Your task to perform on an android device: Open Maps and search for coffee Image 0: 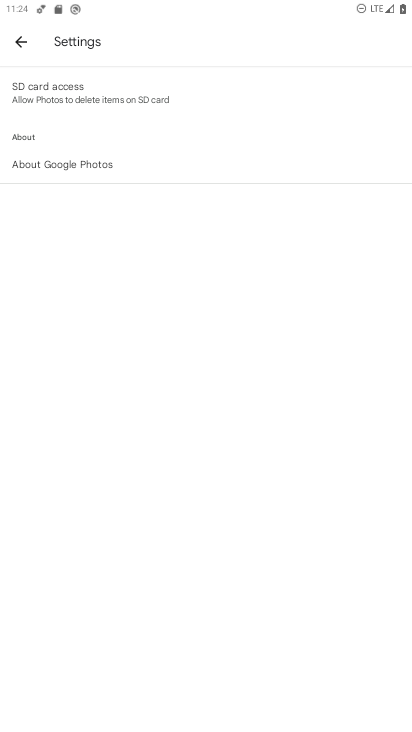
Step 0: press home button
Your task to perform on an android device: Open Maps and search for coffee Image 1: 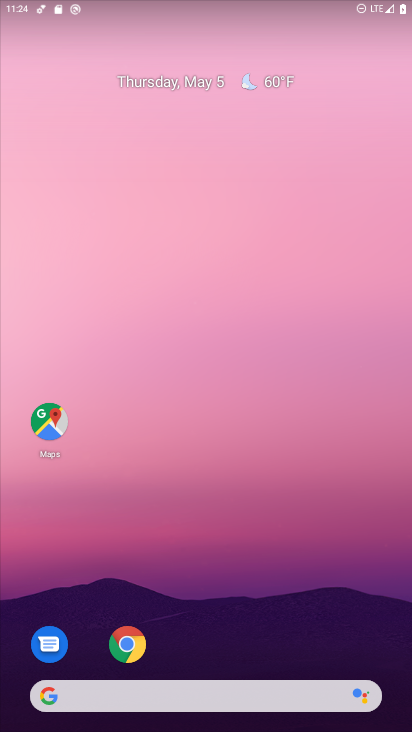
Step 1: drag from (331, 498) to (345, 70)
Your task to perform on an android device: Open Maps and search for coffee Image 2: 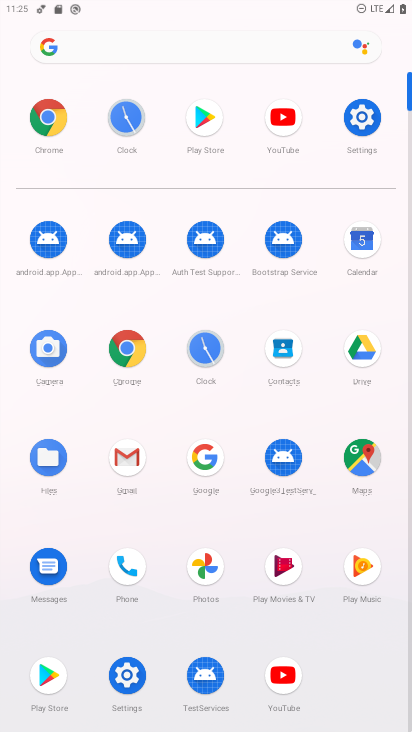
Step 2: click (357, 459)
Your task to perform on an android device: Open Maps and search for coffee Image 3: 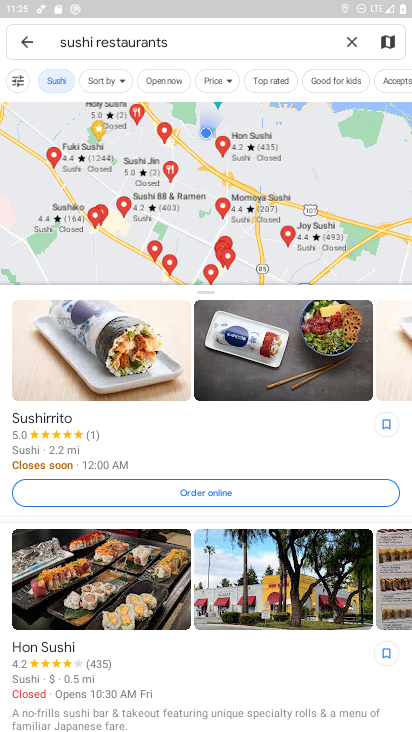
Step 3: click (228, 39)
Your task to perform on an android device: Open Maps and search for coffee Image 4: 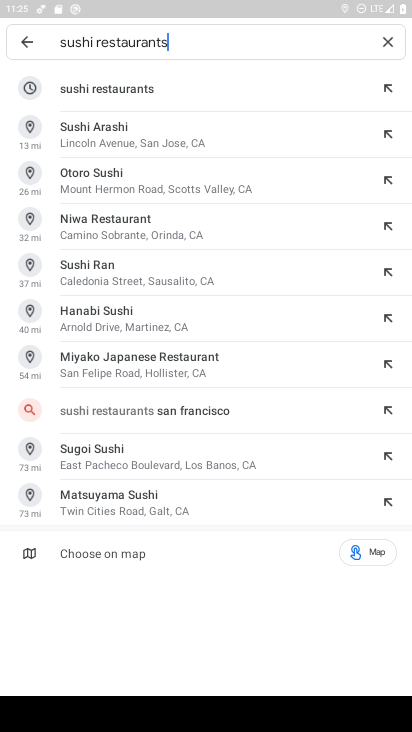
Step 4: click (401, 35)
Your task to perform on an android device: Open Maps and search for coffee Image 5: 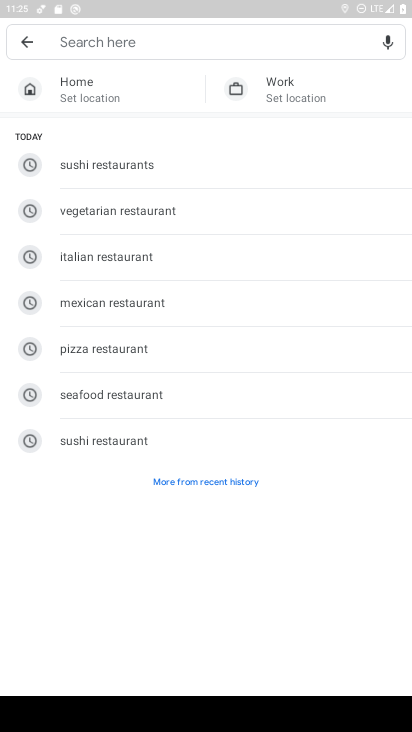
Step 5: click (393, 38)
Your task to perform on an android device: Open Maps and search for coffee Image 6: 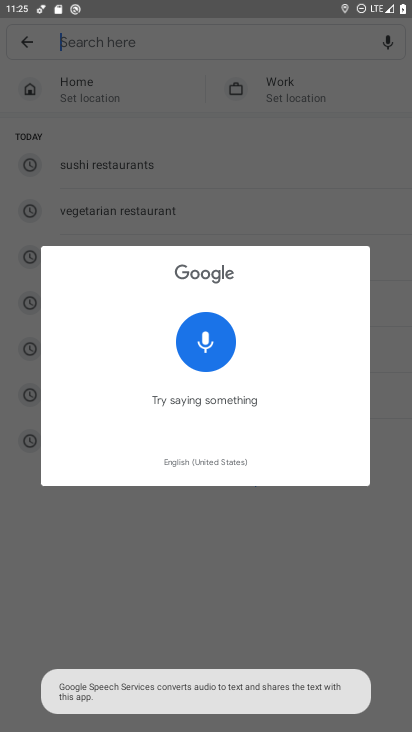
Step 6: click (190, 52)
Your task to perform on an android device: Open Maps and search for coffee Image 7: 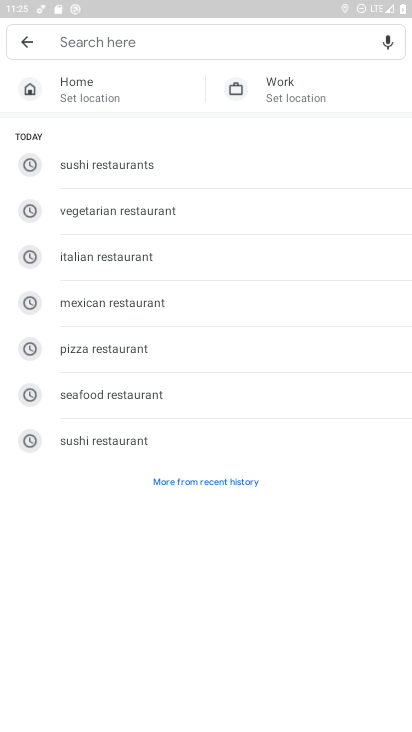
Step 7: type "coffee"
Your task to perform on an android device: Open Maps and search for coffee Image 8: 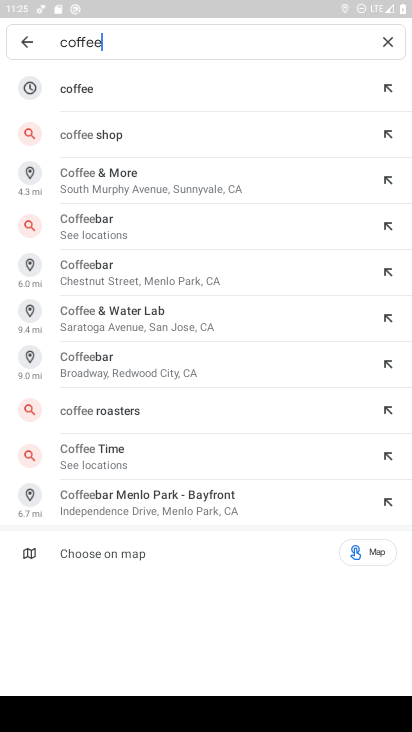
Step 8: click (107, 88)
Your task to perform on an android device: Open Maps and search for coffee Image 9: 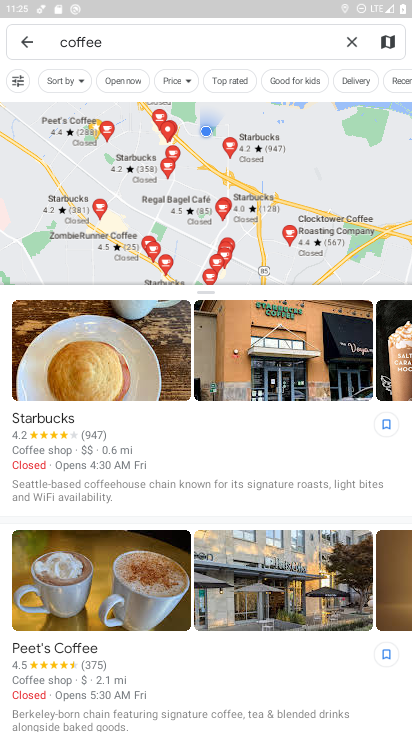
Step 9: task complete